Your task to perform on an android device: delete location history Image 0: 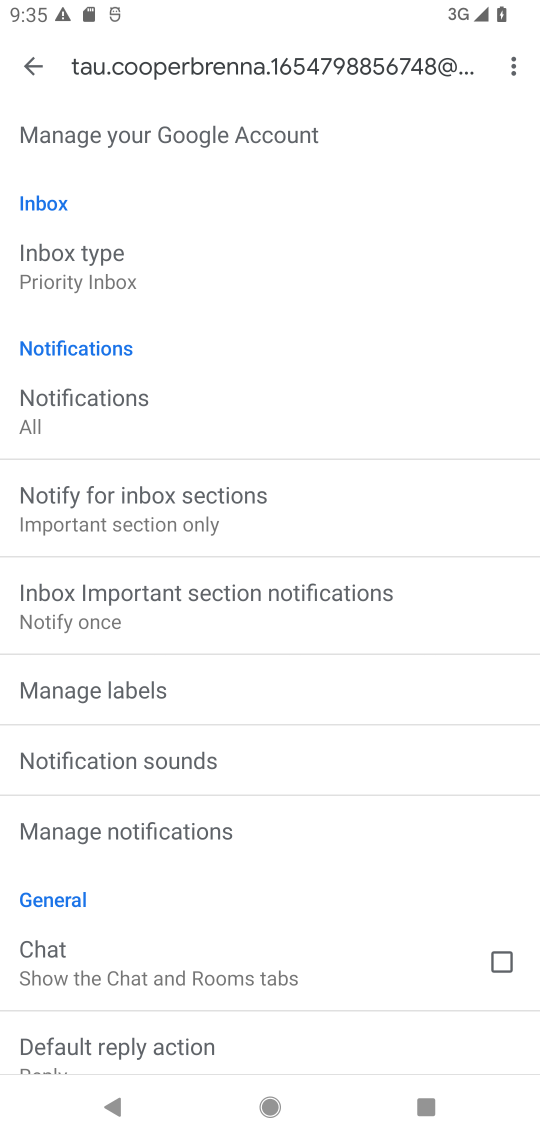
Step 0: press home button
Your task to perform on an android device: delete location history Image 1: 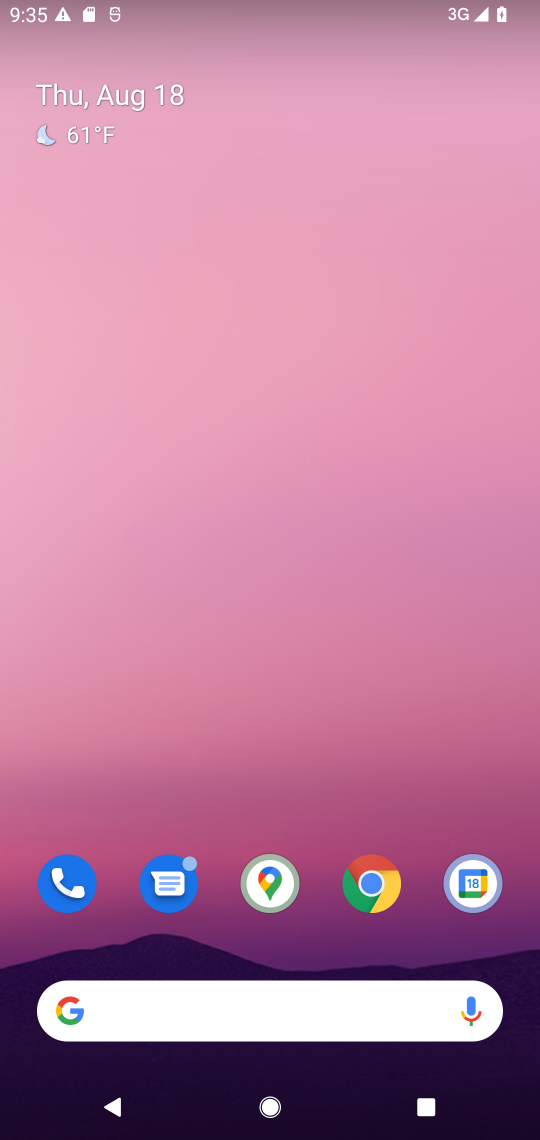
Step 1: drag from (39, 1105) to (308, 173)
Your task to perform on an android device: delete location history Image 2: 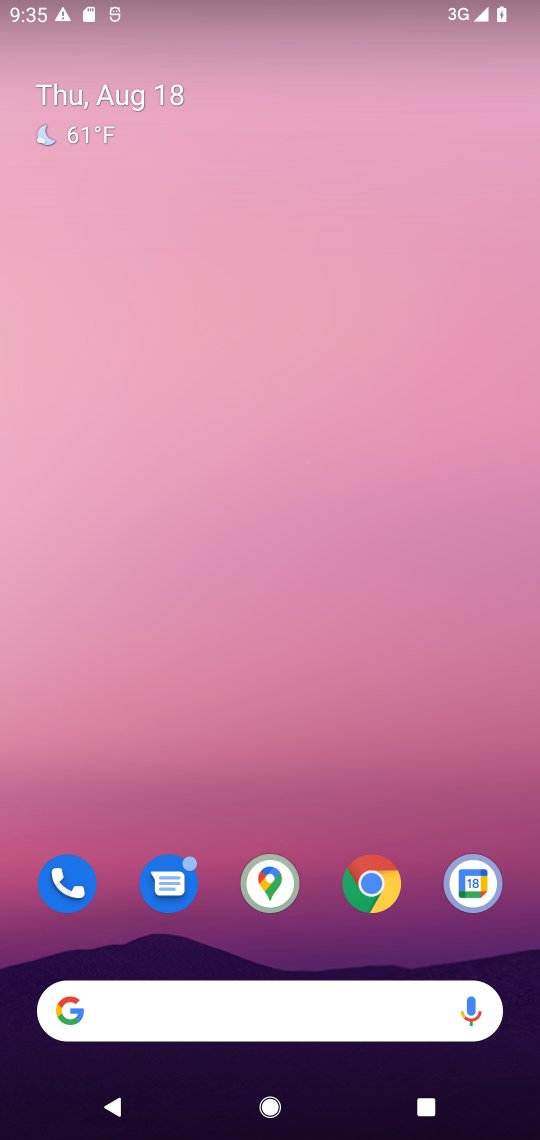
Step 2: drag from (39, 1074) to (146, 139)
Your task to perform on an android device: delete location history Image 3: 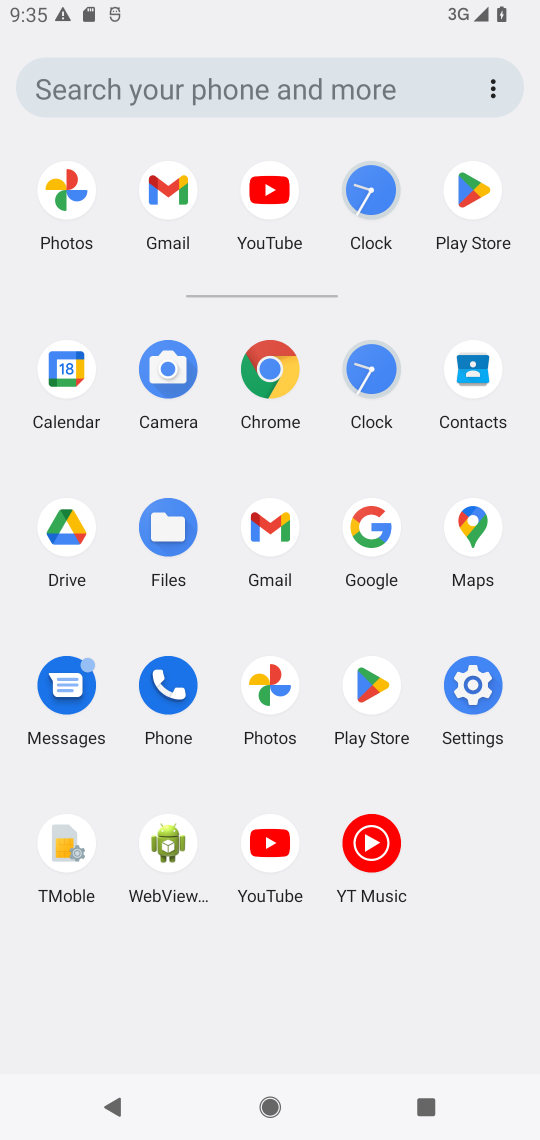
Step 3: click (471, 718)
Your task to perform on an android device: delete location history Image 4: 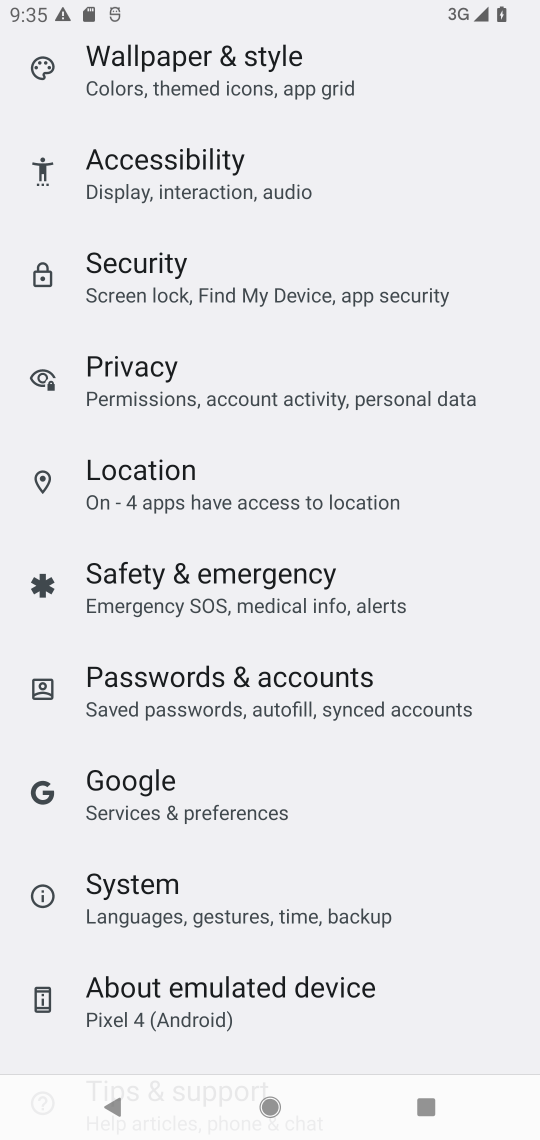
Step 4: click (166, 481)
Your task to perform on an android device: delete location history Image 5: 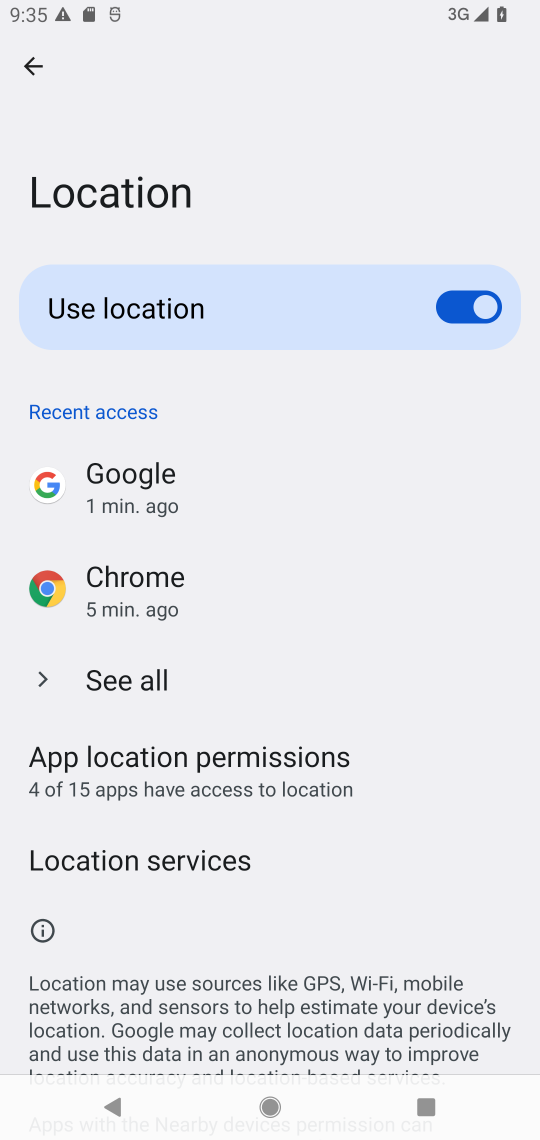
Step 5: click (200, 788)
Your task to perform on an android device: delete location history Image 6: 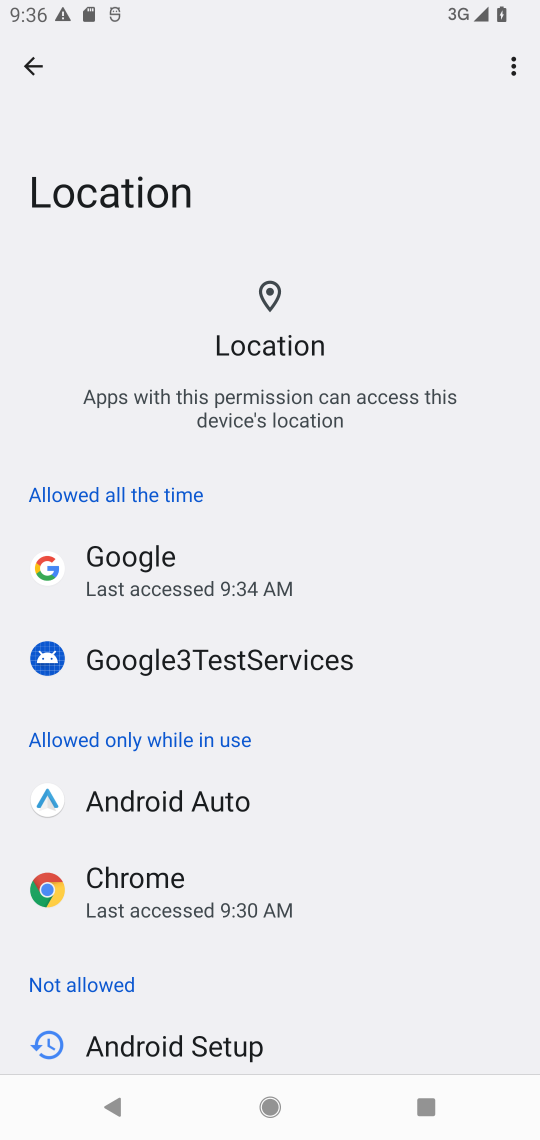
Step 6: task complete